Your task to perform on an android device: Search for Italian restaurants on Maps Image 0: 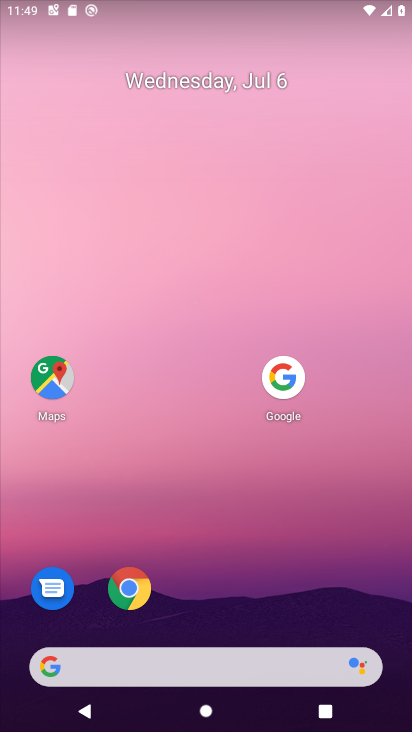
Step 0: click (54, 373)
Your task to perform on an android device: Search for Italian restaurants on Maps Image 1: 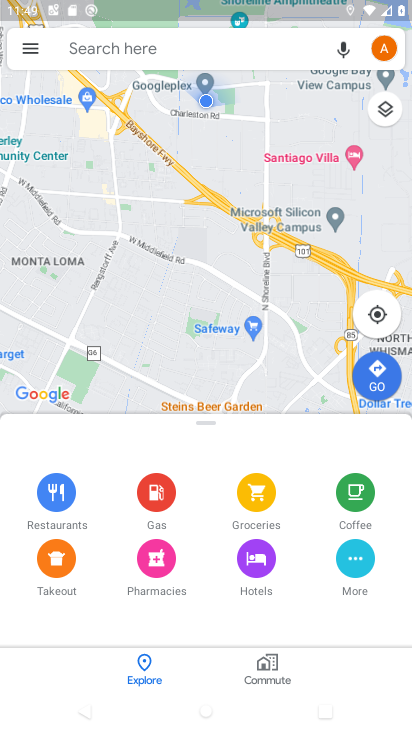
Step 1: click (177, 42)
Your task to perform on an android device: Search for Italian restaurants on Maps Image 2: 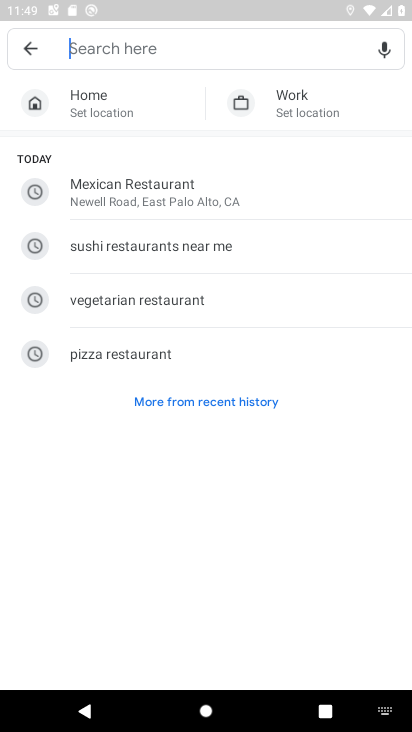
Step 2: type "Italian restaurants "
Your task to perform on an android device: Search for Italian restaurants on Maps Image 3: 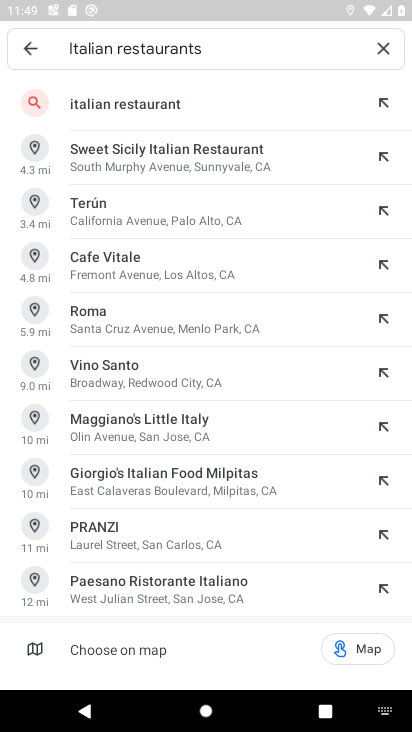
Step 3: click (147, 96)
Your task to perform on an android device: Search for Italian restaurants on Maps Image 4: 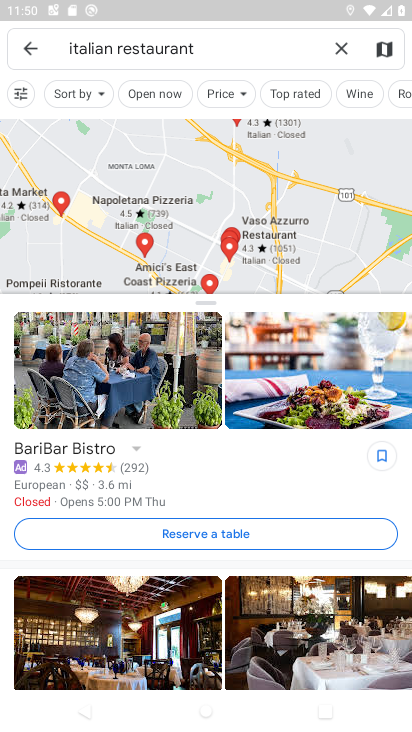
Step 4: task complete